Your task to perform on an android device: Search for Italian restaurants on Maps Image 0: 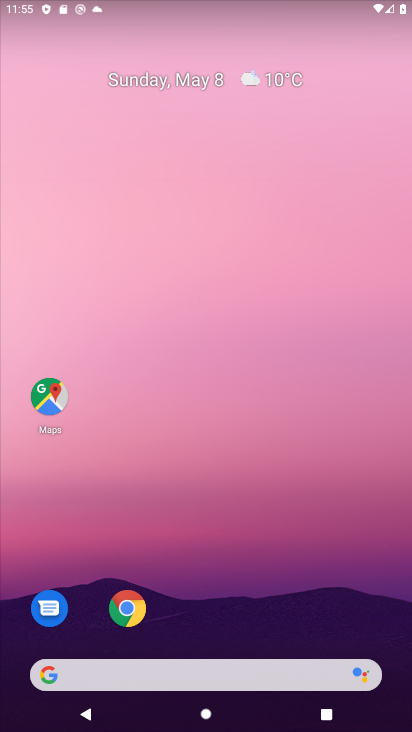
Step 0: click (56, 412)
Your task to perform on an android device: Search for Italian restaurants on Maps Image 1: 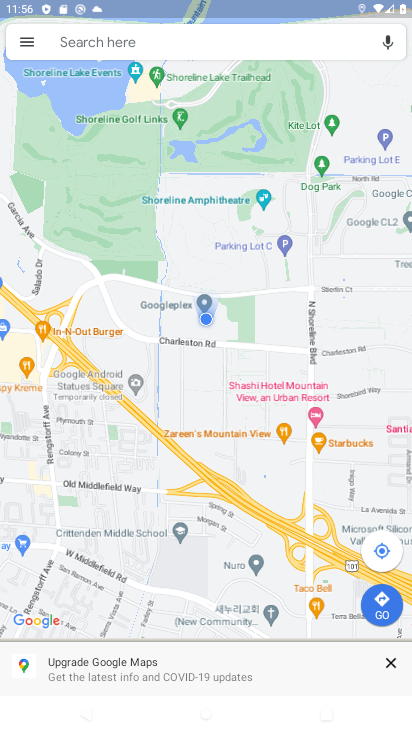
Step 1: click (224, 47)
Your task to perform on an android device: Search for Italian restaurants on Maps Image 2: 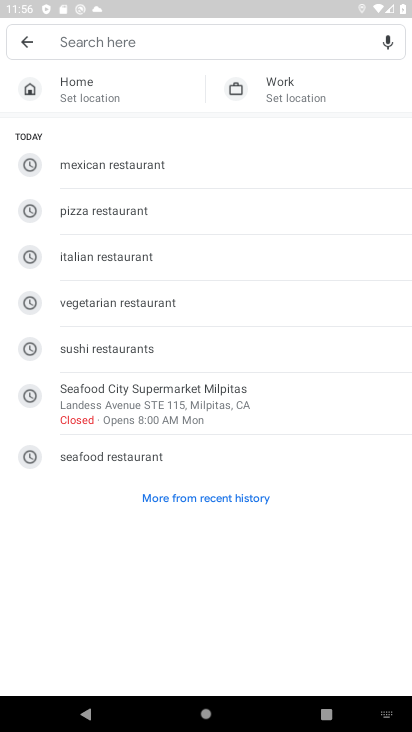
Step 2: click (142, 257)
Your task to perform on an android device: Search for Italian restaurants on Maps Image 3: 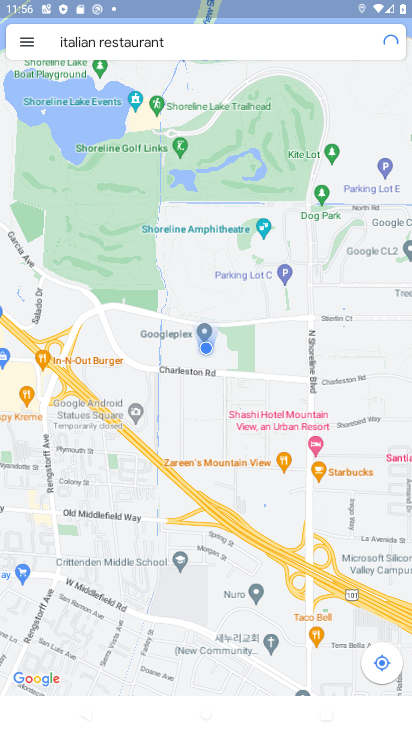
Step 3: task complete